Your task to perform on an android device: turn off sleep mode Image 0: 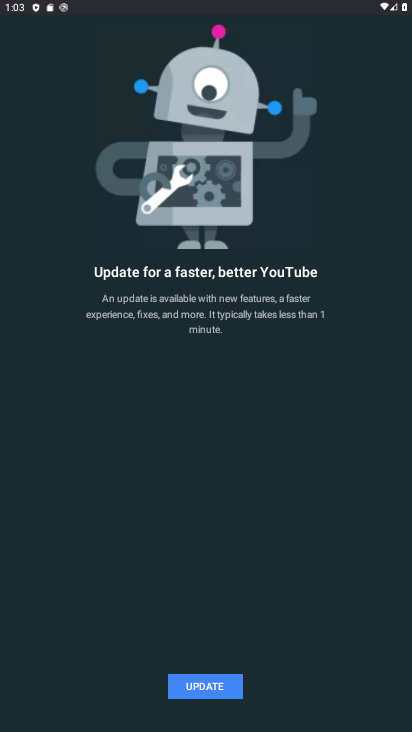
Step 0: press home button
Your task to perform on an android device: turn off sleep mode Image 1: 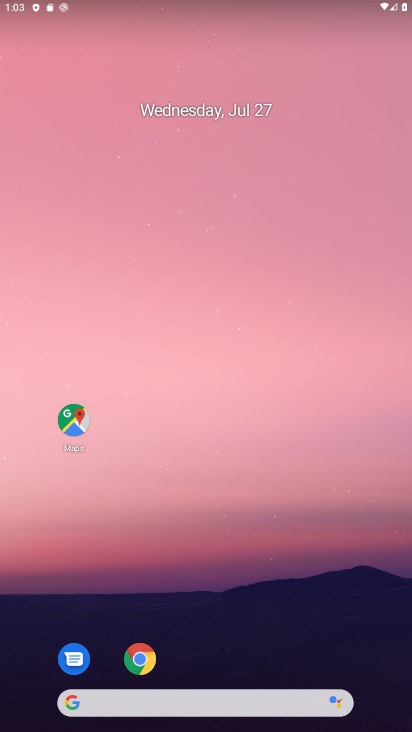
Step 1: drag from (282, 645) to (248, 76)
Your task to perform on an android device: turn off sleep mode Image 2: 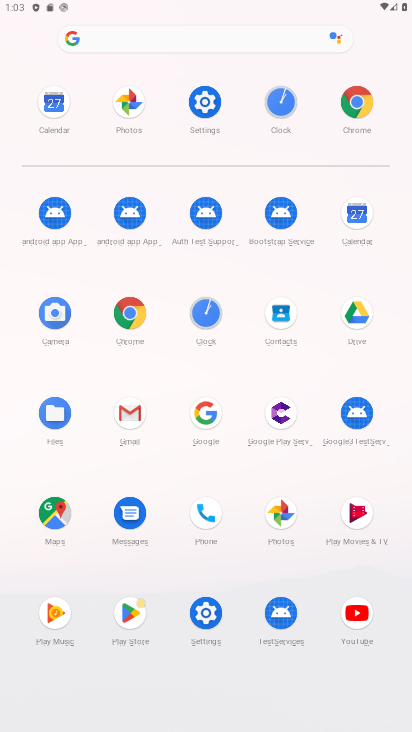
Step 2: click (198, 94)
Your task to perform on an android device: turn off sleep mode Image 3: 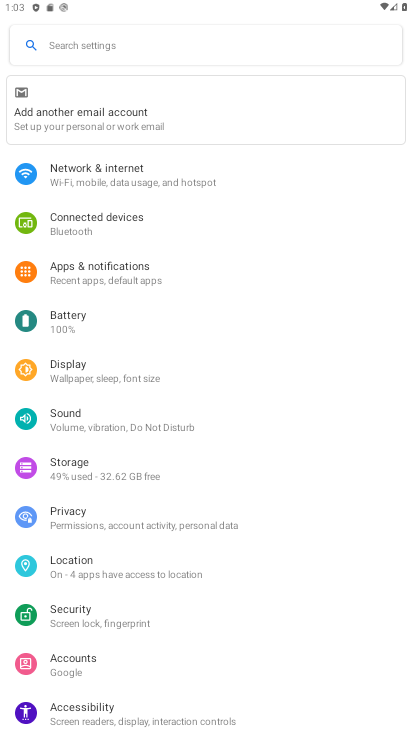
Step 3: click (88, 372)
Your task to perform on an android device: turn off sleep mode Image 4: 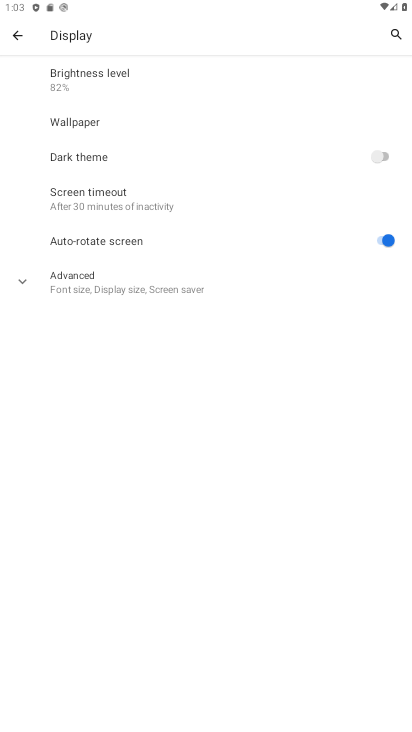
Step 4: click (142, 202)
Your task to perform on an android device: turn off sleep mode Image 5: 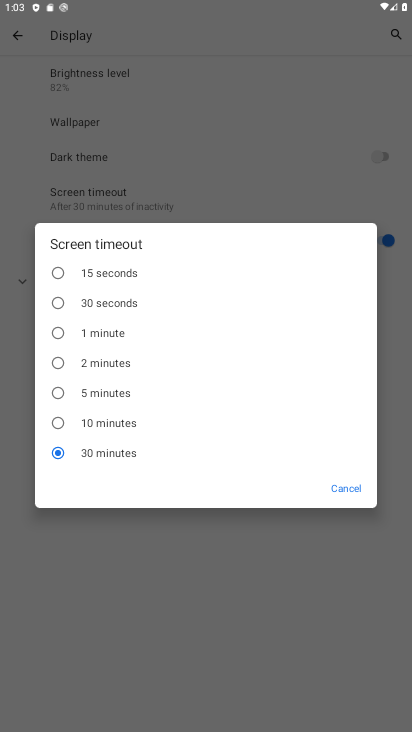
Step 5: task complete